Your task to perform on an android device: Open Reddit.com Image 0: 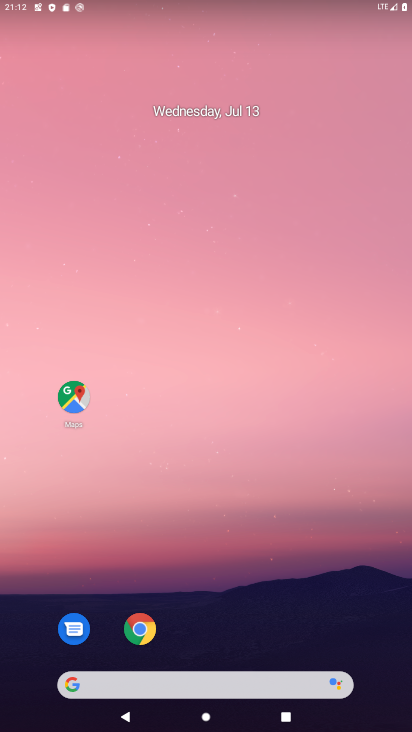
Step 0: click (143, 625)
Your task to perform on an android device: Open Reddit.com Image 1: 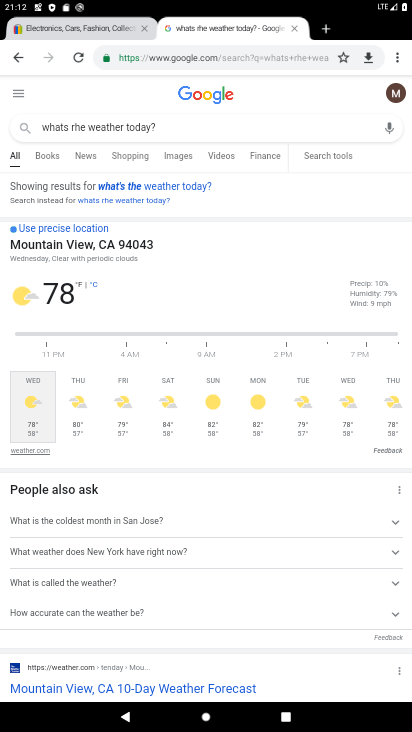
Step 1: click (279, 51)
Your task to perform on an android device: Open Reddit.com Image 2: 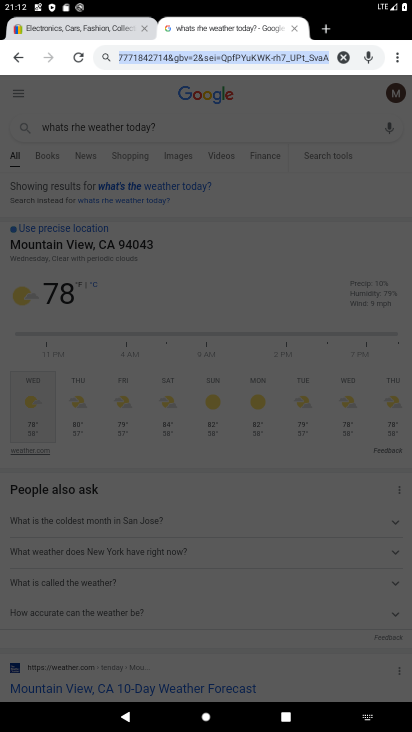
Step 2: click (346, 54)
Your task to perform on an android device: Open Reddit.com Image 3: 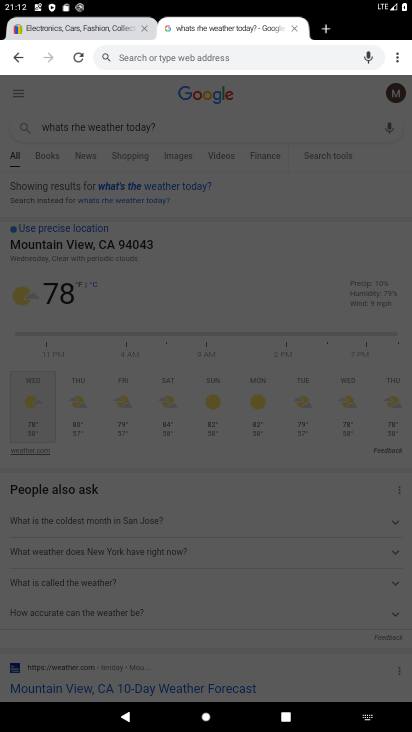
Step 3: type "Reddit.com"
Your task to perform on an android device: Open Reddit.com Image 4: 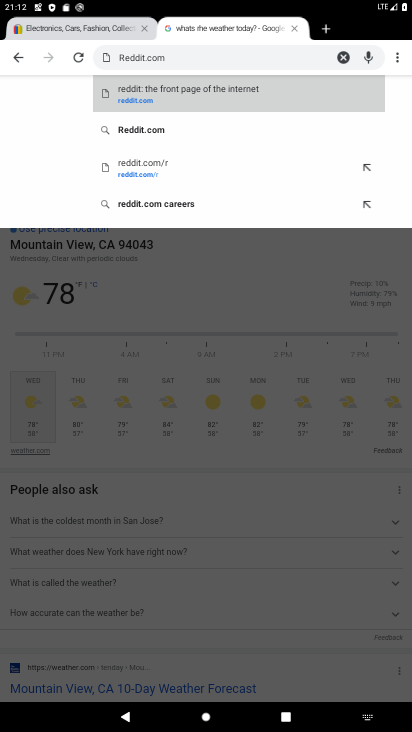
Step 4: click (140, 94)
Your task to perform on an android device: Open Reddit.com Image 5: 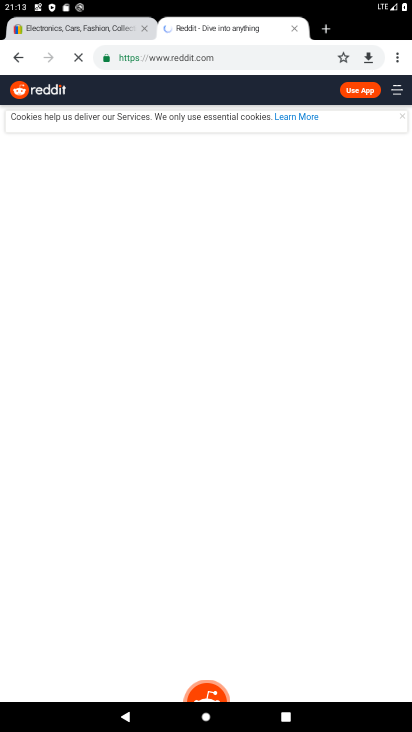
Step 5: task complete